Your task to perform on an android device: Go to CNN.com Image 0: 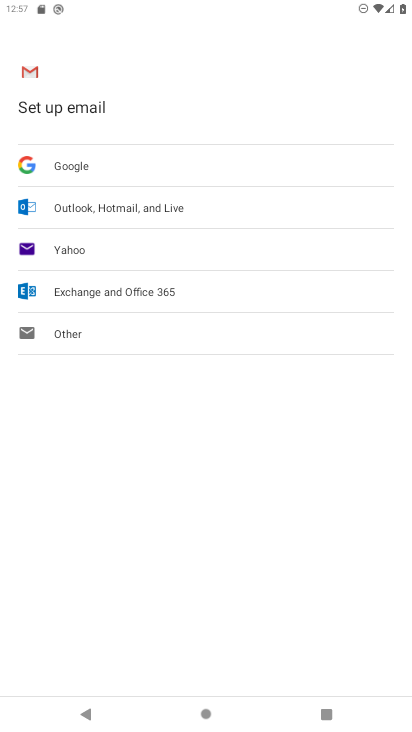
Step 0: press home button
Your task to perform on an android device: Go to CNN.com Image 1: 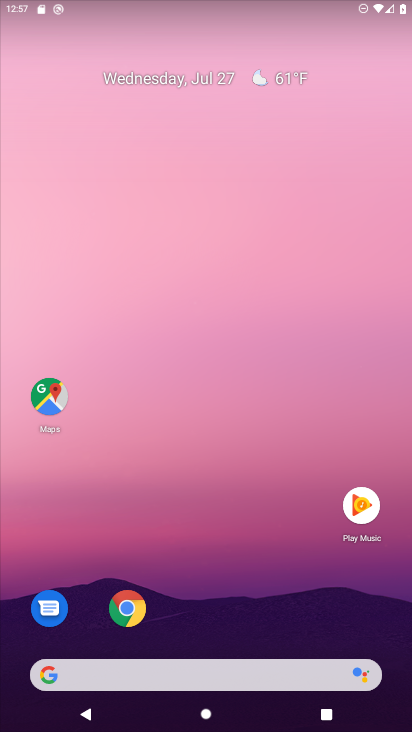
Step 1: drag from (279, 551) to (278, 239)
Your task to perform on an android device: Go to CNN.com Image 2: 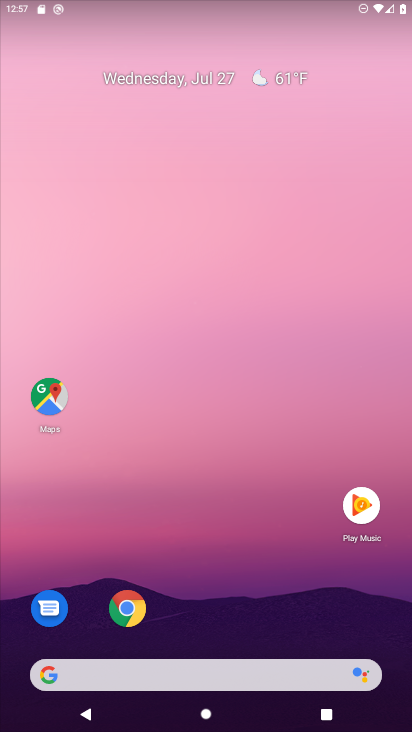
Step 2: drag from (230, 620) to (264, 142)
Your task to perform on an android device: Go to CNN.com Image 3: 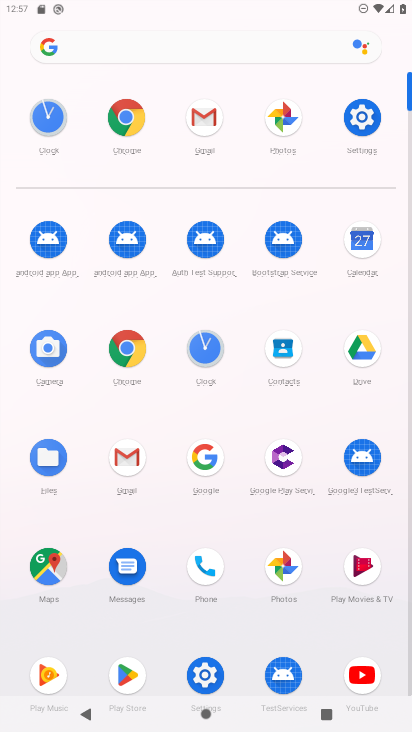
Step 3: click (128, 347)
Your task to perform on an android device: Go to CNN.com Image 4: 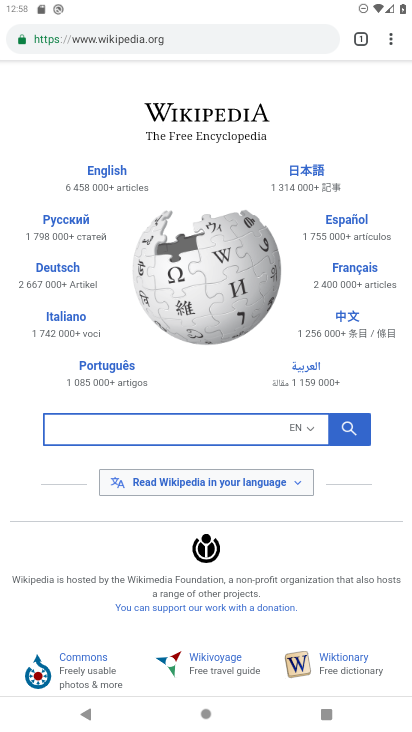
Step 4: click (280, 40)
Your task to perform on an android device: Go to CNN.com Image 5: 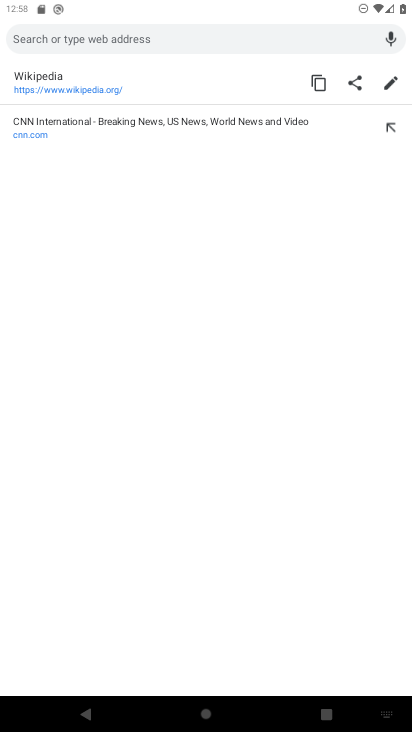
Step 5: type "cnn.com"
Your task to perform on an android device: Go to CNN.com Image 6: 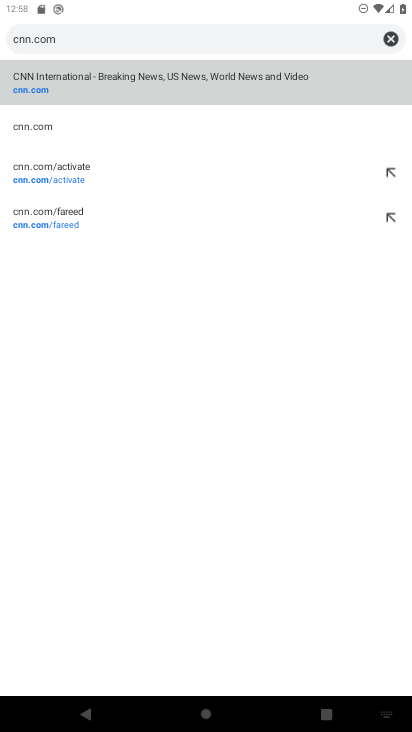
Step 6: click (240, 86)
Your task to perform on an android device: Go to CNN.com Image 7: 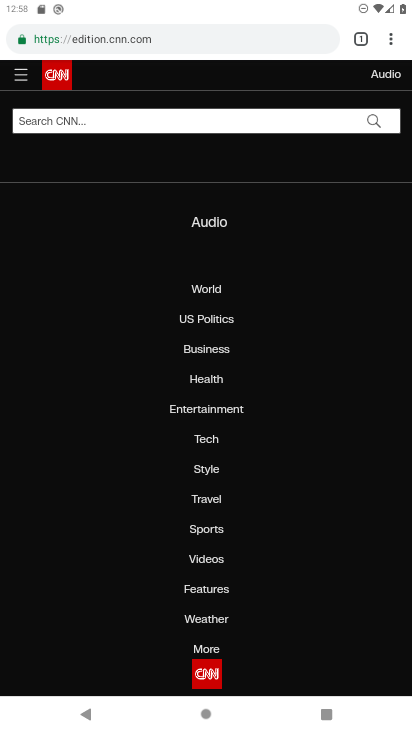
Step 7: task complete